Your task to perform on an android device: set the stopwatch Image 0: 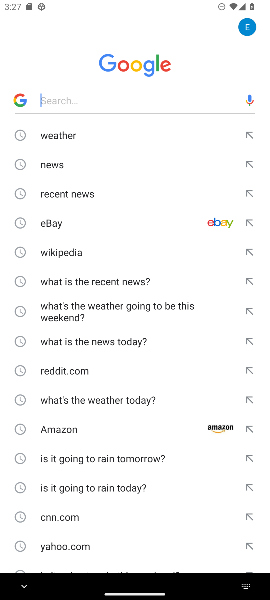
Step 0: press home button
Your task to perform on an android device: set the stopwatch Image 1: 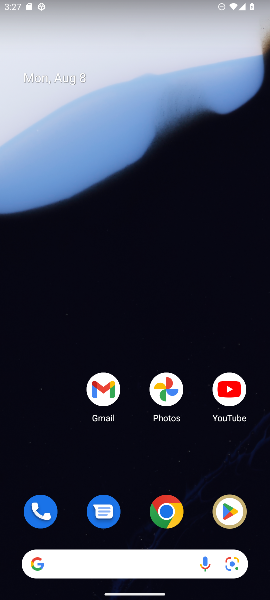
Step 1: drag from (147, 466) to (154, 103)
Your task to perform on an android device: set the stopwatch Image 2: 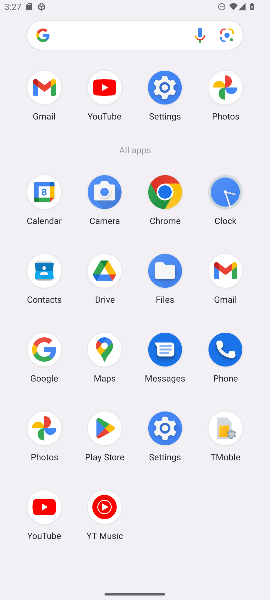
Step 2: click (230, 190)
Your task to perform on an android device: set the stopwatch Image 3: 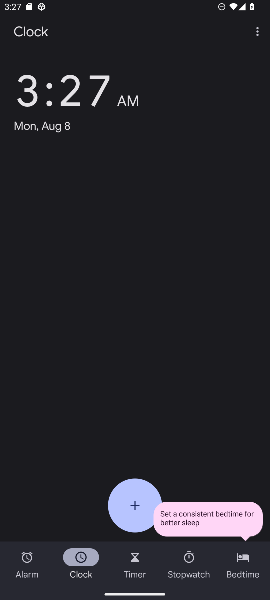
Step 3: click (239, 557)
Your task to perform on an android device: set the stopwatch Image 4: 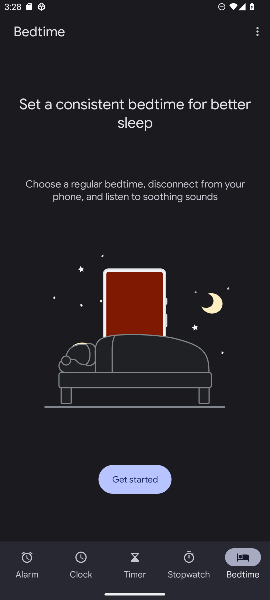
Step 4: click (196, 573)
Your task to perform on an android device: set the stopwatch Image 5: 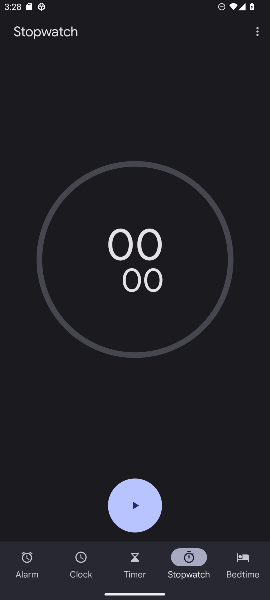
Step 5: click (136, 504)
Your task to perform on an android device: set the stopwatch Image 6: 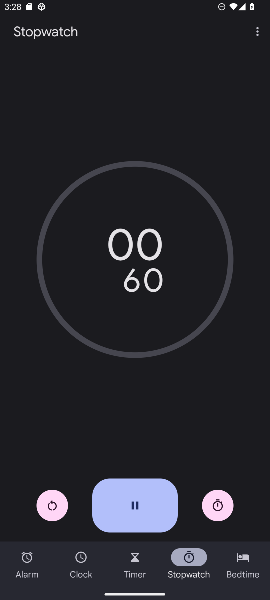
Step 6: click (136, 504)
Your task to perform on an android device: set the stopwatch Image 7: 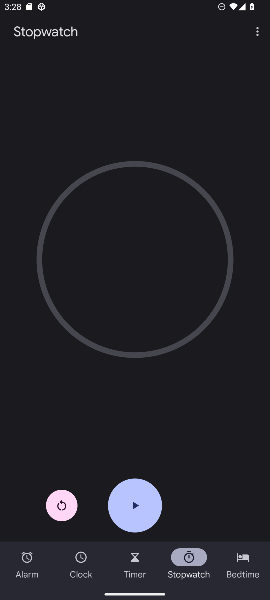
Step 7: task complete